Your task to perform on an android device: turn off notifications in google photos Image 0: 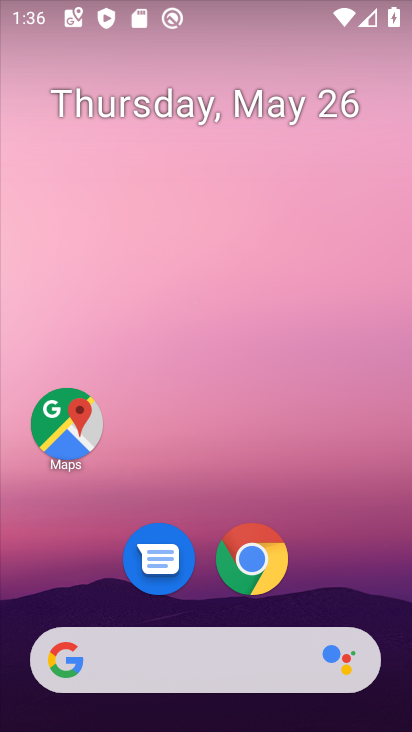
Step 0: drag from (180, 651) to (289, 129)
Your task to perform on an android device: turn off notifications in google photos Image 1: 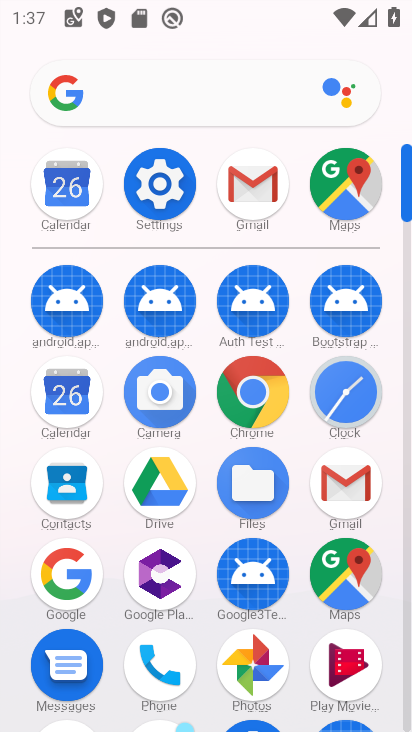
Step 1: click (263, 663)
Your task to perform on an android device: turn off notifications in google photos Image 2: 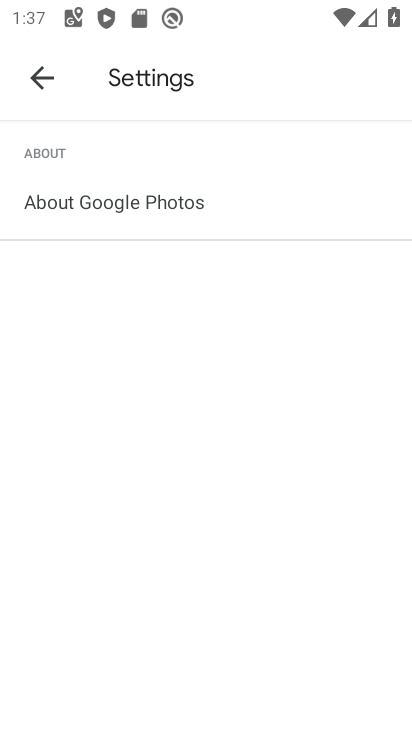
Step 2: click (42, 72)
Your task to perform on an android device: turn off notifications in google photos Image 3: 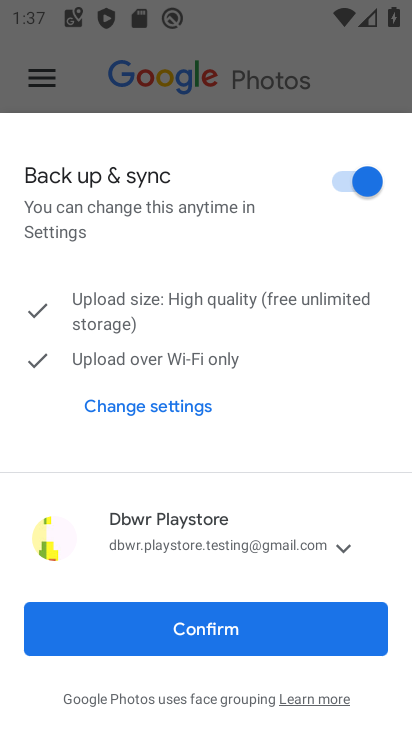
Step 3: click (216, 629)
Your task to perform on an android device: turn off notifications in google photos Image 4: 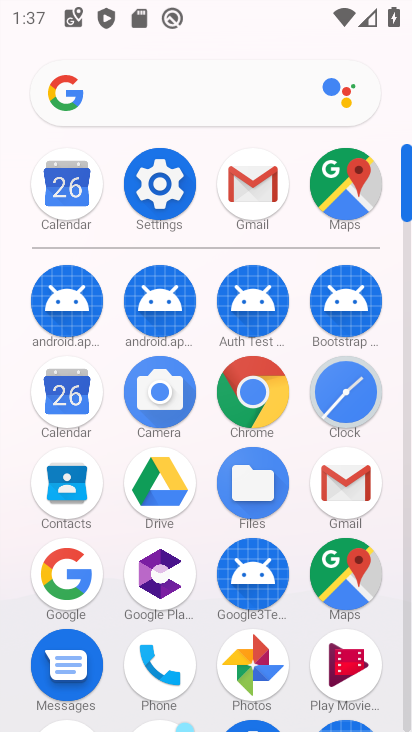
Step 4: click (251, 654)
Your task to perform on an android device: turn off notifications in google photos Image 5: 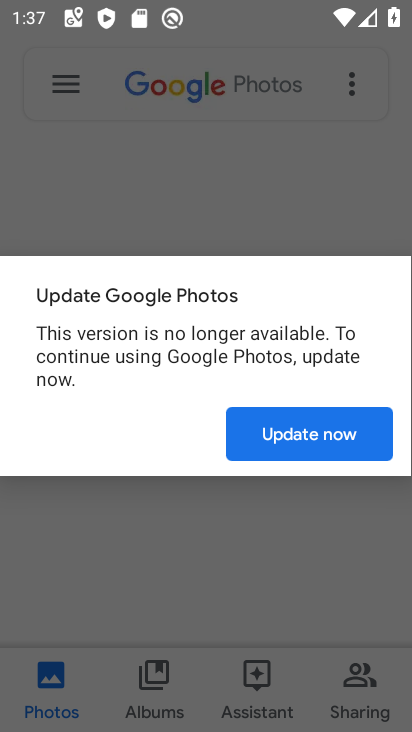
Step 5: click (311, 442)
Your task to perform on an android device: turn off notifications in google photos Image 6: 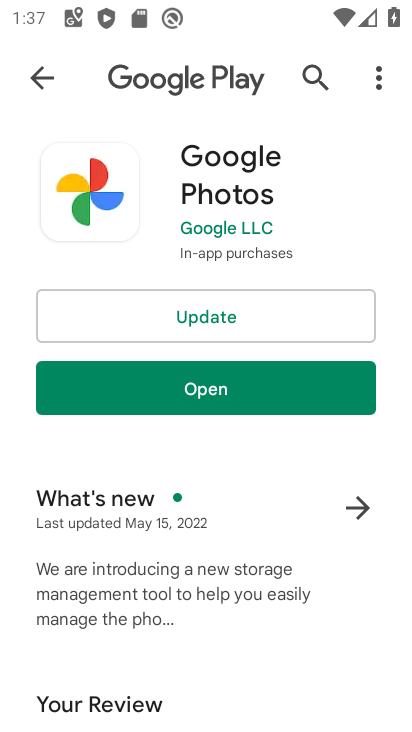
Step 6: click (239, 386)
Your task to perform on an android device: turn off notifications in google photos Image 7: 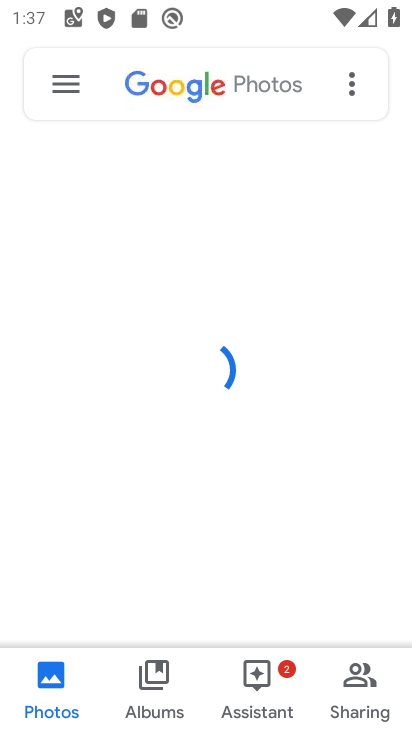
Step 7: click (67, 82)
Your task to perform on an android device: turn off notifications in google photos Image 8: 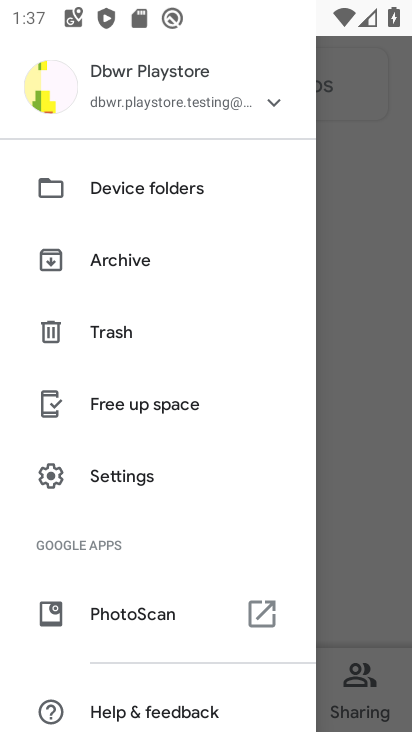
Step 8: drag from (157, 674) to (216, 228)
Your task to perform on an android device: turn off notifications in google photos Image 9: 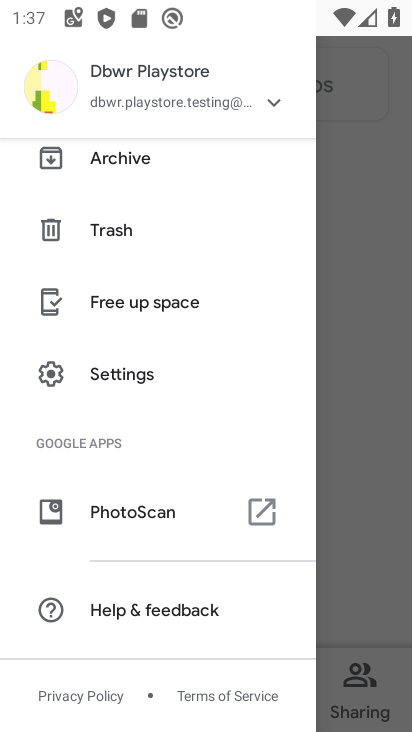
Step 9: click (128, 361)
Your task to perform on an android device: turn off notifications in google photos Image 10: 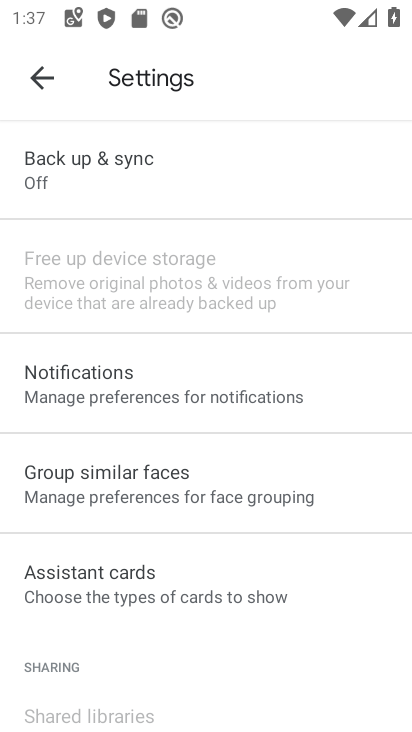
Step 10: click (188, 387)
Your task to perform on an android device: turn off notifications in google photos Image 11: 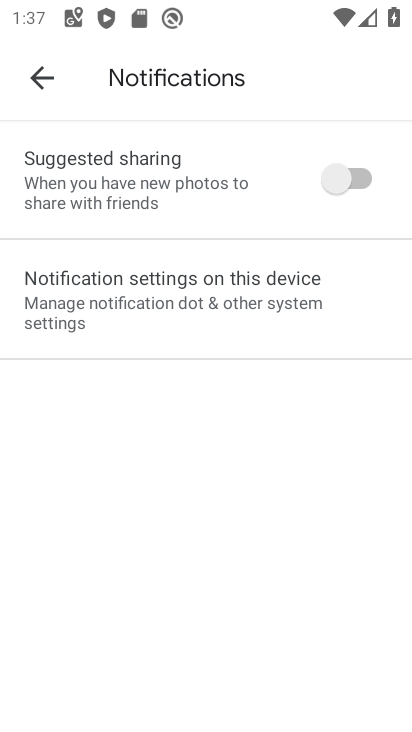
Step 11: click (172, 304)
Your task to perform on an android device: turn off notifications in google photos Image 12: 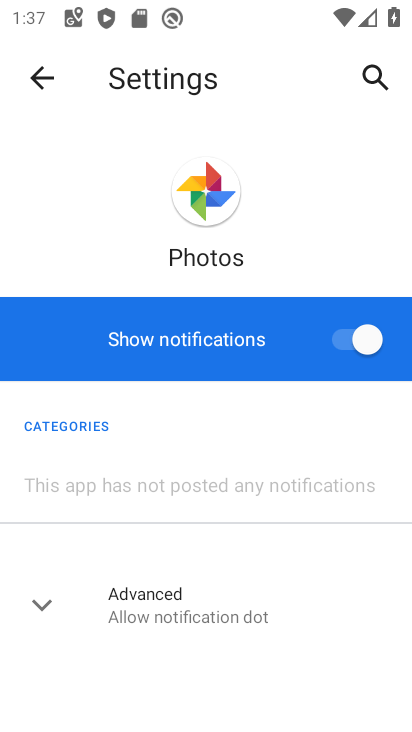
Step 12: click (346, 345)
Your task to perform on an android device: turn off notifications in google photos Image 13: 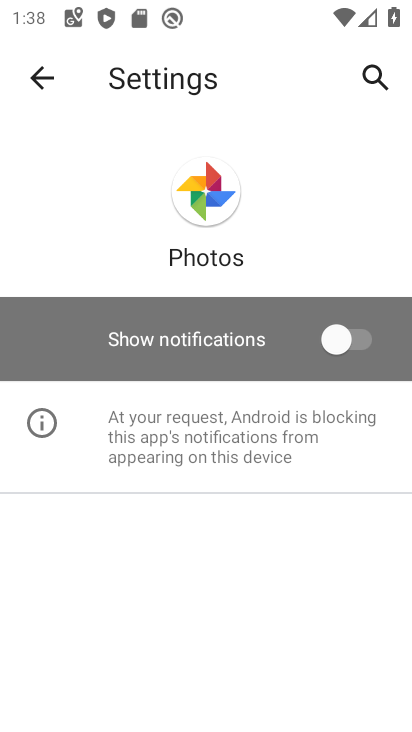
Step 13: task complete